Your task to perform on an android device: Is it going to rain this weekend? Image 0: 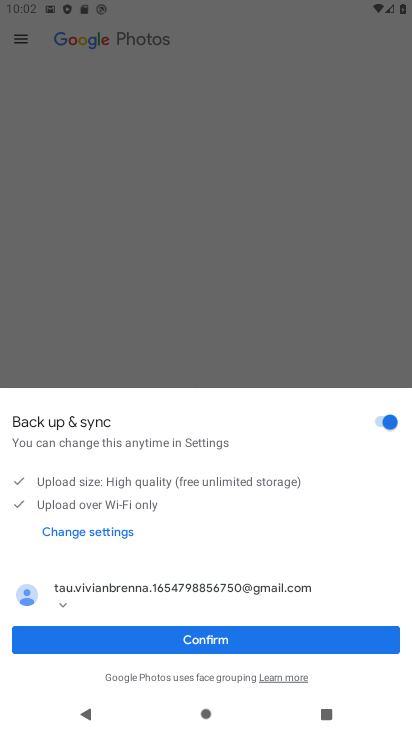
Step 0: press home button
Your task to perform on an android device: Is it going to rain this weekend? Image 1: 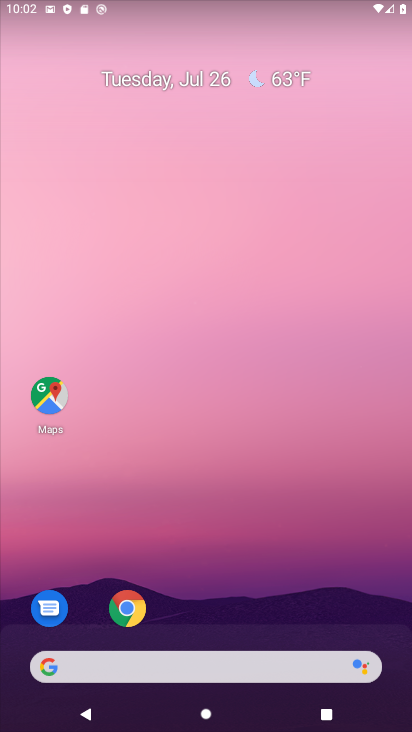
Step 1: click (49, 671)
Your task to perform on an android device: Is it going to rain this weekend? Image 2: 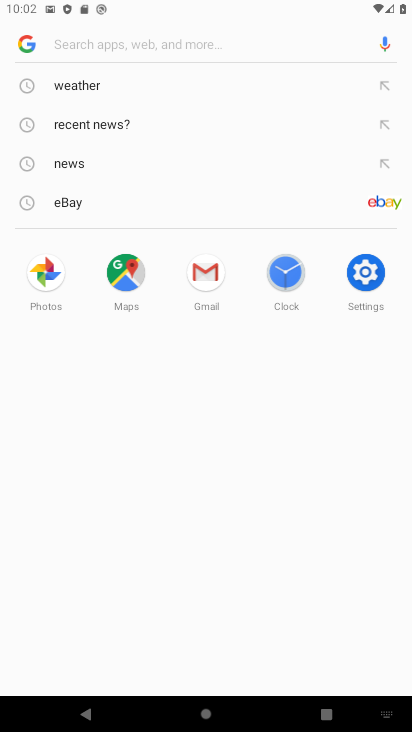
Step 2: type "Is it going to rain this weekend?"
Your task to perform on an android device: Is it going to rain this weekend? Image 3: 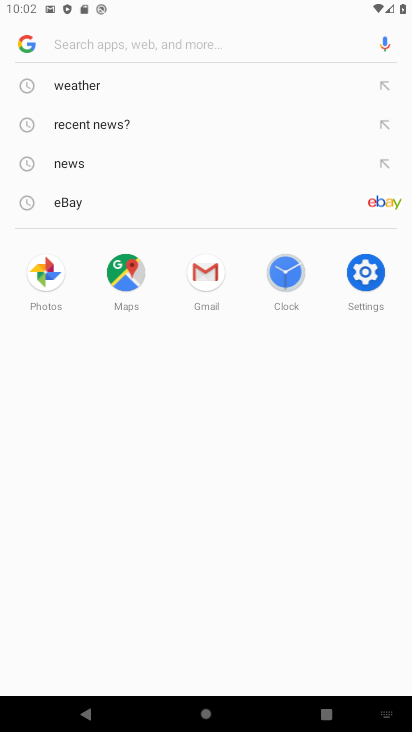
Step 3: click (159, 41)
Your task to perform on an android device: Is it going to rain this weekend? Image 4: 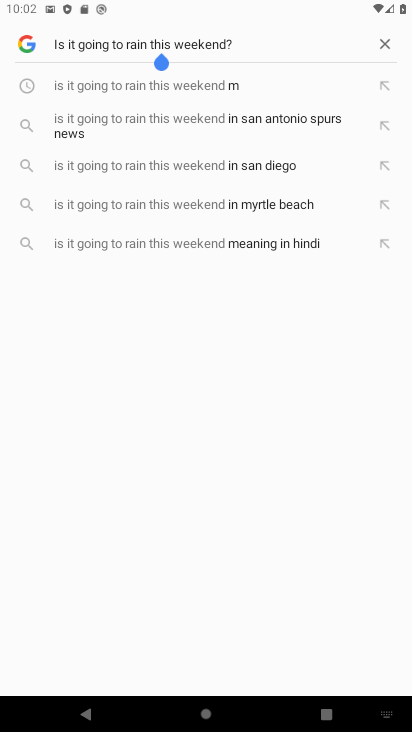
Step 4: press enter
Your task to perform on an android device: Is it going to rain this weekend? Image 5: 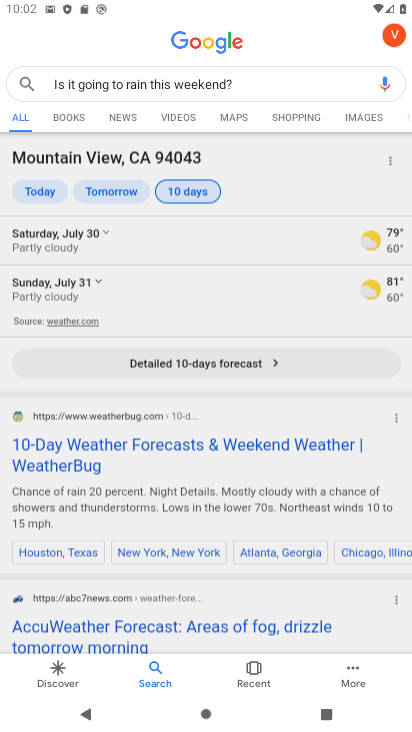
Step 5: task complete